Your task to perform on an android device: See recent photos Image 0: 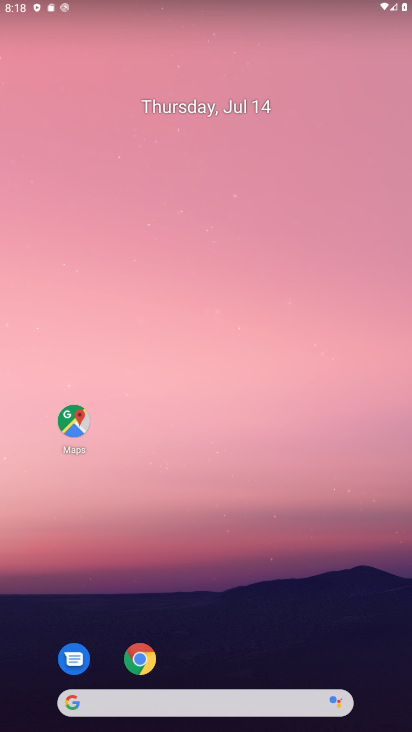
Step 0: drag from (222, 656) to (166, 242)
Your task to perform on an android device: See recent photos Image 1: 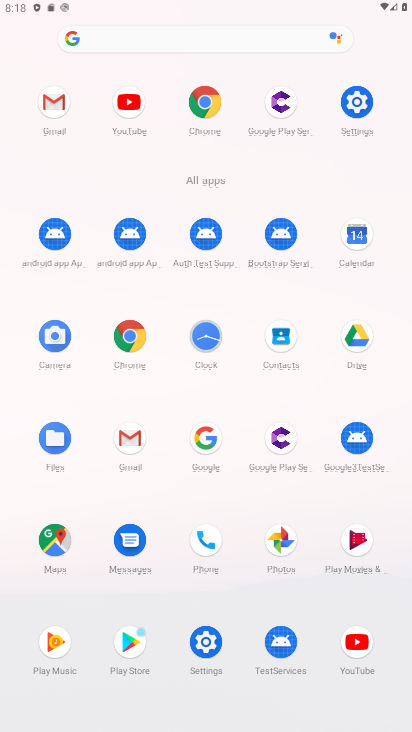
Step 1: click (289, 527)
Your task to perform on an android device: See recent photos Image 2: 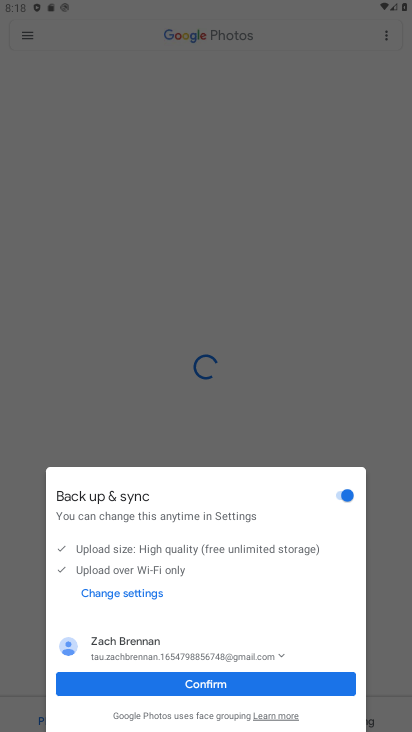
Step 2: click (274, 680)
Your task to perform on an android device: See recent photos Image 3: 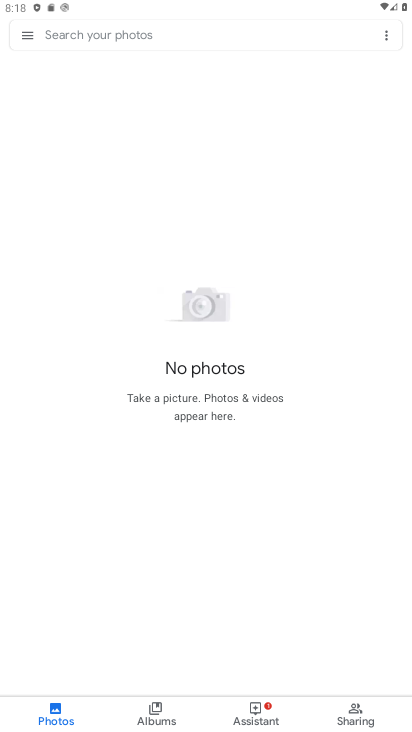
Step 3: task complete